Your task to perform on an android device: toggle airplane mode Image 0: 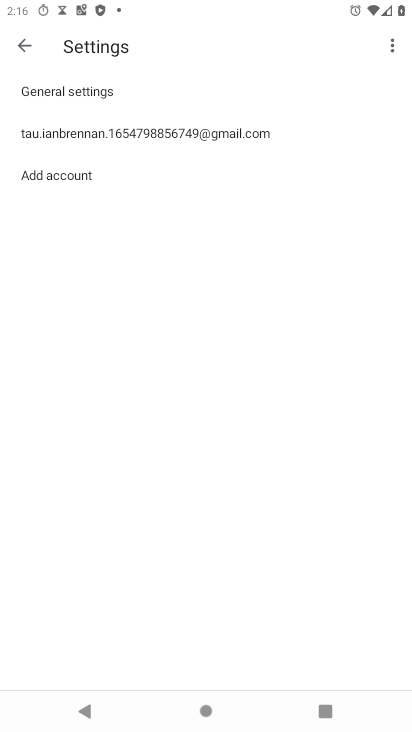
Step 0: press home button
Your task to perform on an android device: toggle airplane mode Image 1: 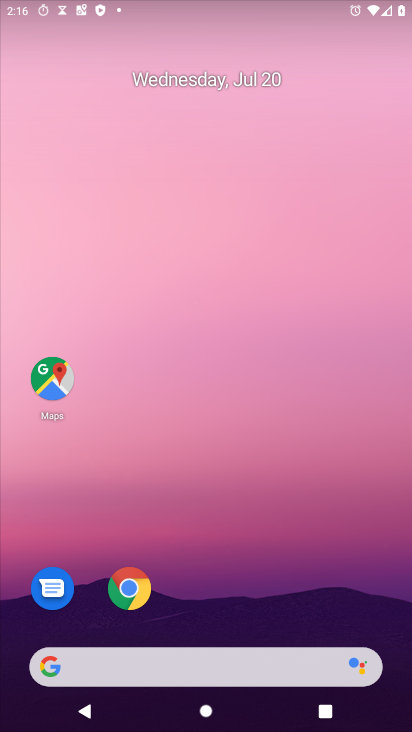
Step 1: drag from (317, 501) to (305, 1)
Your task to perform on an android device: toggle airplane mode Image 2: 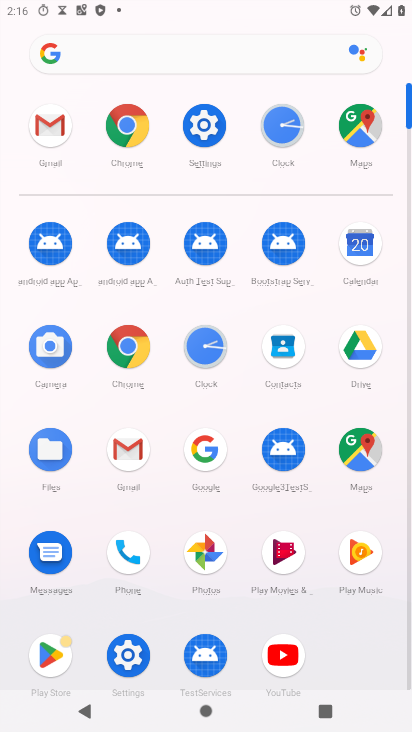
Step 2: click (200, 138)
Your task to perform on an android device: toggle airplane mode Image 3: 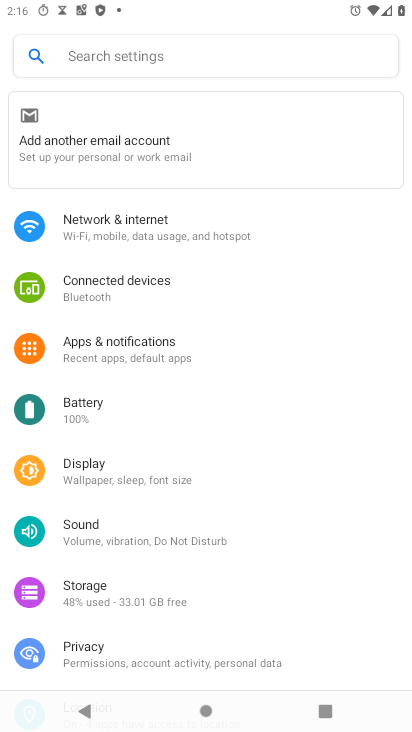
Step 3: click (156, 241)
Your task to perform on an android device: toggle airplane mode Image 4: 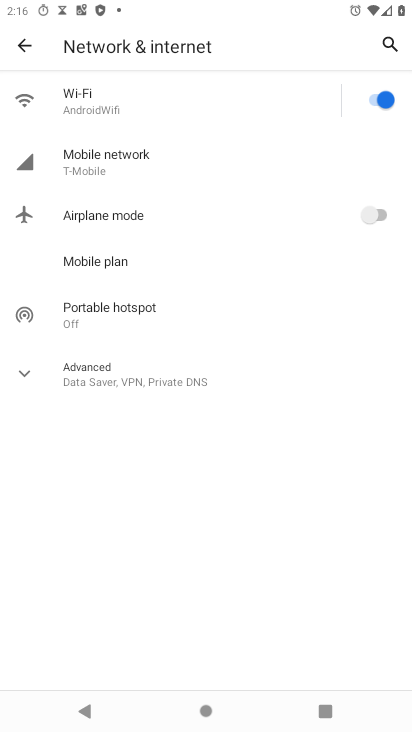
Step 4: click (381, 212)
Your task to perform on an android device: toggle airplane mode Image 5: 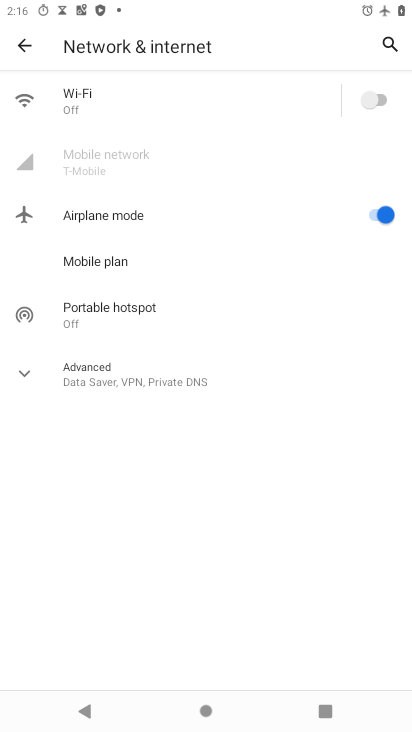
Step 5: task complete